Your task to perform on an android device: Turn off the flashlight Image 0: 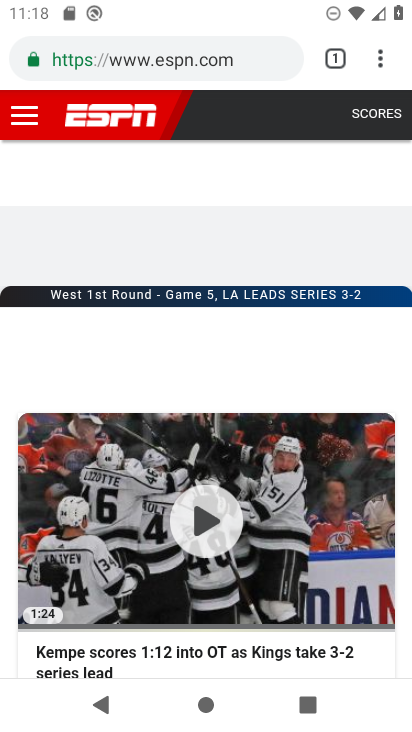
Step 0: drag from (302, 4) to (285, 555)
Your task to perform on an android device: Turn off the flashlight Image 1: 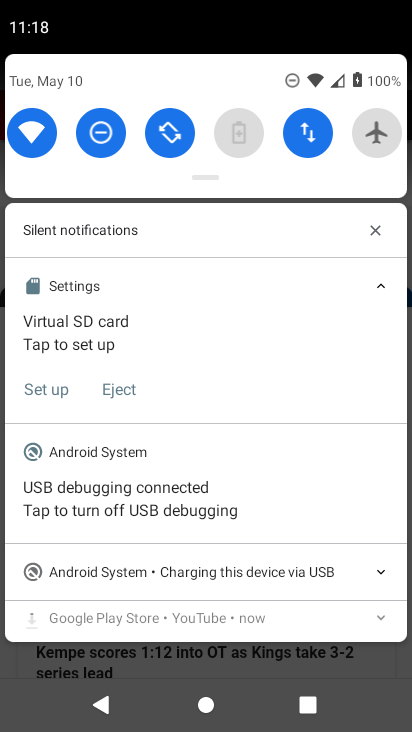
Step 1: task complete